Your task to perform on an android device: Go to Reddit.com Image 0: 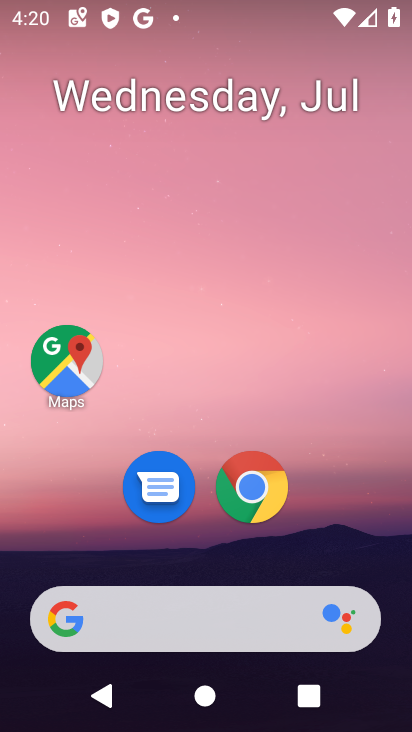
Step 0: click (247, 482)
Your task to perform on an android device: Go to Reddit.com Image 1: 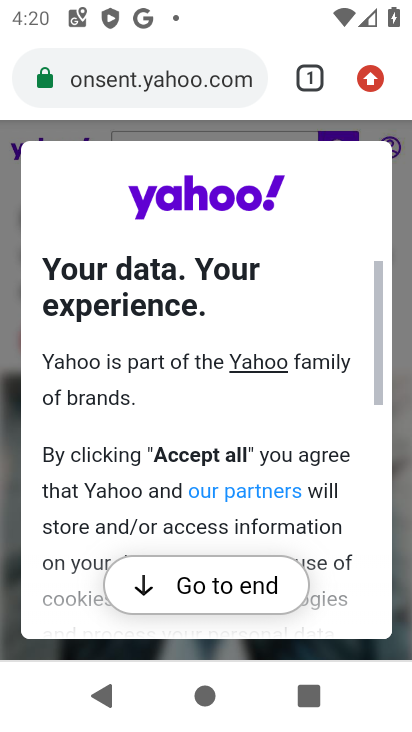
Step 1: click (318, 77)
Your task to perform on an android device: Go to Reddit.com Image 2: 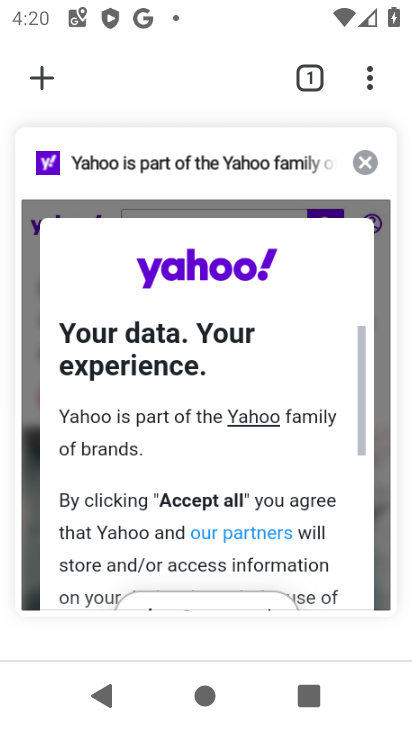
Step 2: click (37, 77)
Your task to perform on an android device: Go to Reddit.com Image 3: 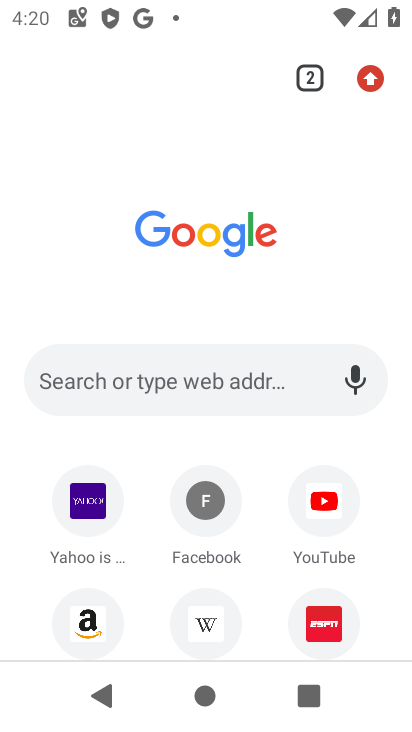
Step 3: click (118, 392)
Your task to perform on an android device: Go to Reddit.com Image 4: 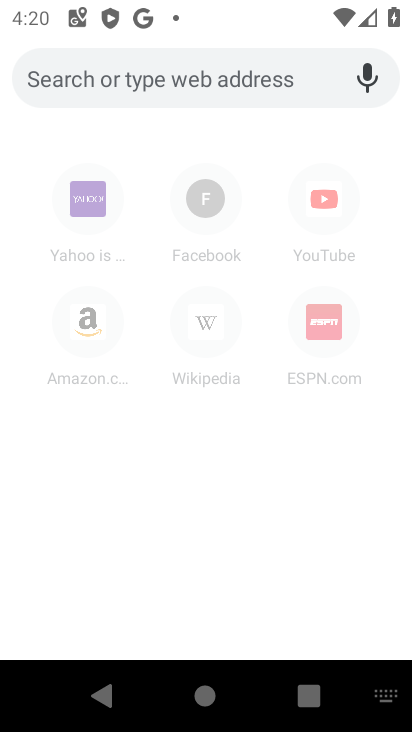
Step 4: click (84, 69)
Your task to perform on an android device: Go to Reddit.com Image 5: 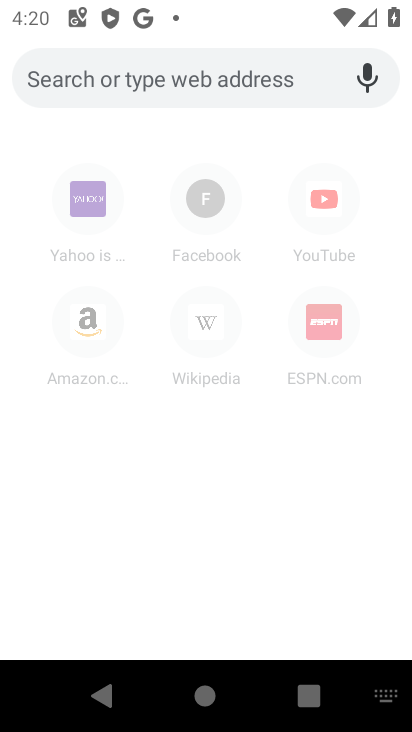
Step 5: type "reddit.com"
Your task to perform on an android device: Go to Reddit.com Image 6: 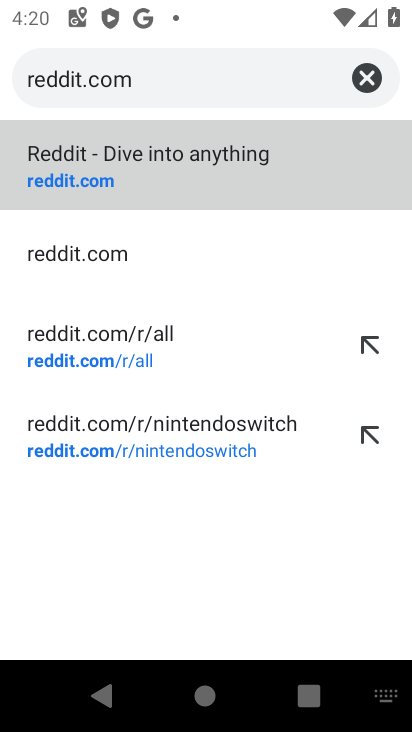
Step 6: click (192, 169)
Your task to perform on an android device: Go to Reddit.com Image 7: 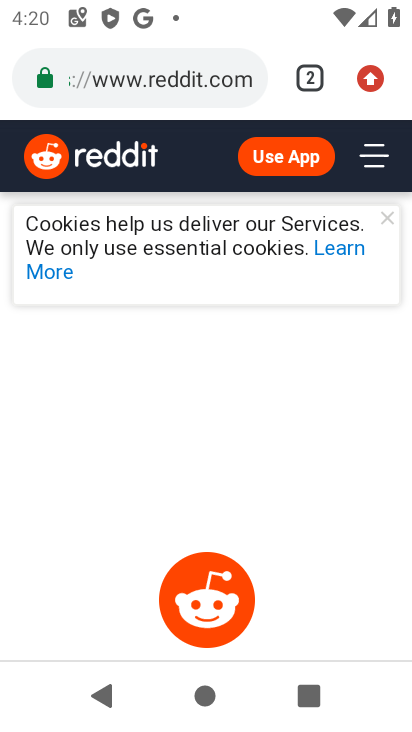
Step 7: task complete